Your task to perform on an android device: turn off wifi Image 0: 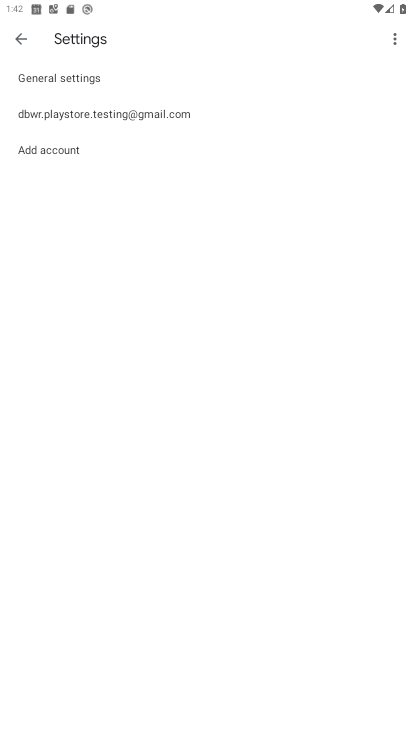
Step 0: press home button
Your task to perform on an android device: turn off wifi Image 1: 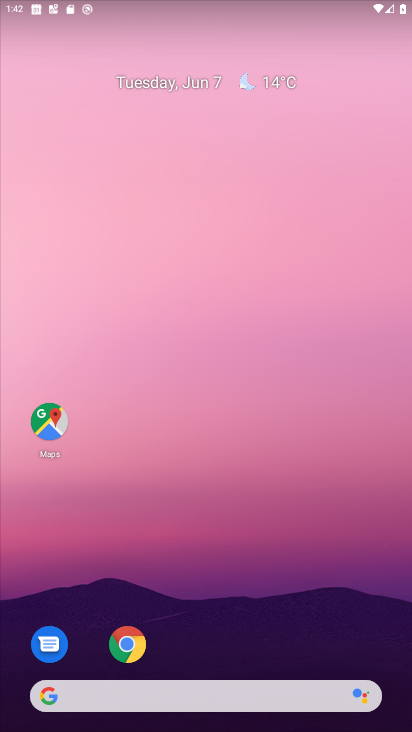
Step 1: drag from (223, 545) to (307, 15)
Your task to perform on an android device: turn off wifi Image 2: 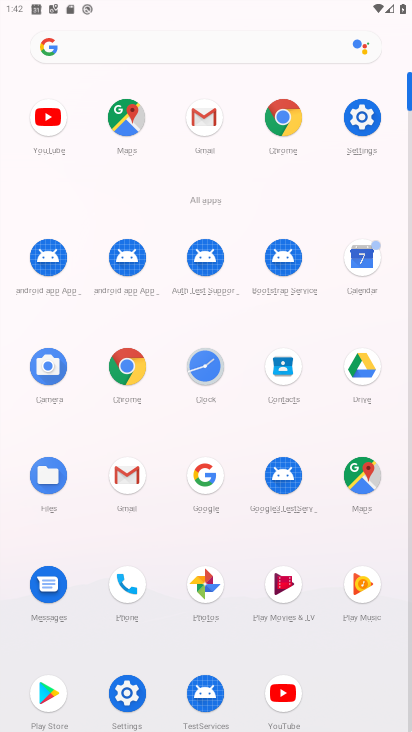
Step 2: click (355, 127)
Your task to perform on an android device: turn off wifi Image 3: 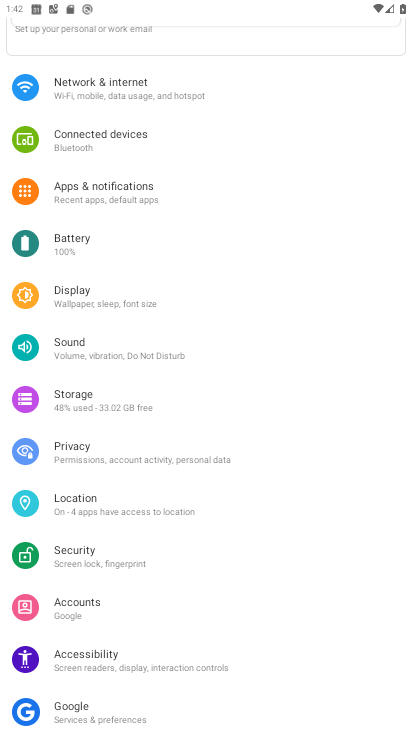
Step 3: click (115, 90)
Your task to perform on an android device: turn off wifi Image 4: 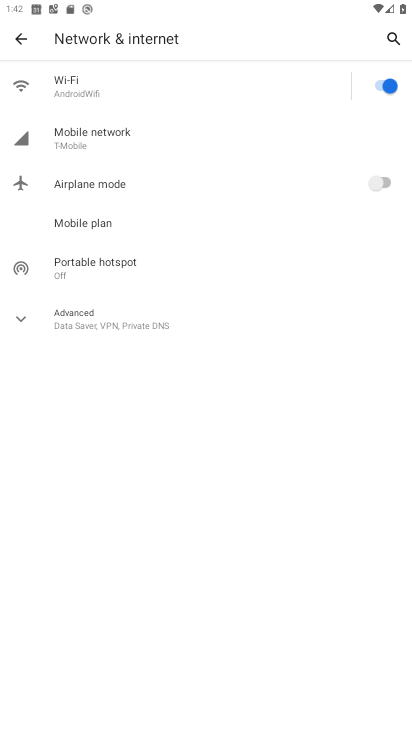
Step 4: click (384, 88)
Your task to perform on an android device: turn off wifi Image 5: 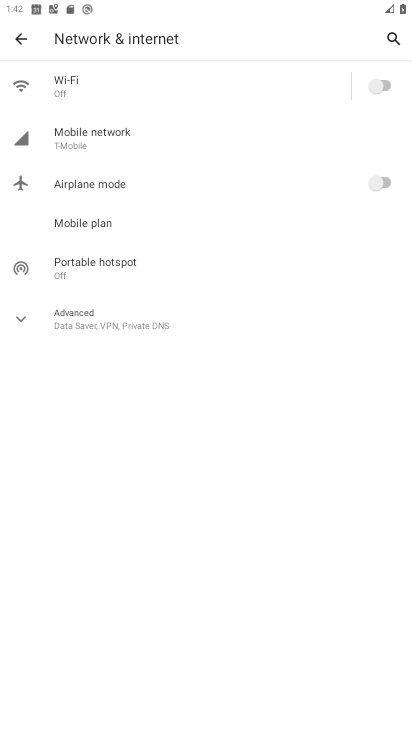
Step 5: task complete